Your task to perform on an android device: clear history in the chrome app Image 0: 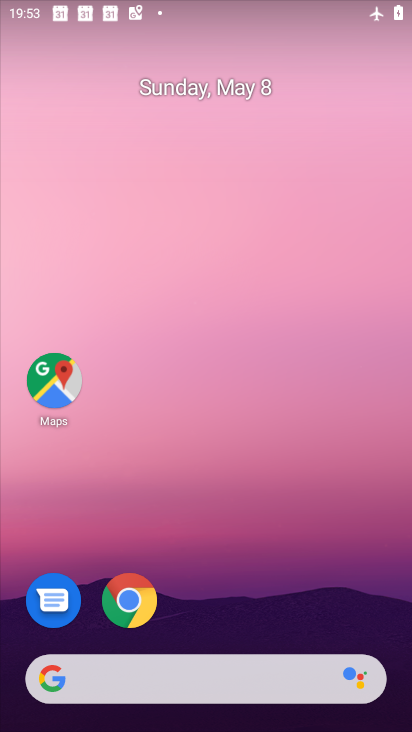
Step 0: drag from (255, 699) to (137, 171)
Your task to perform on an android device: clear history in the chrome app Image 1: 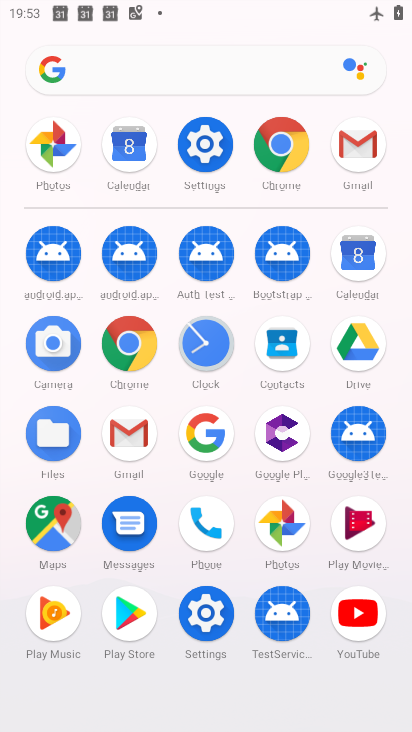
Step 1: click (273, 168)
Your task to perform on an android device: clear history in the chrome app Image 2: 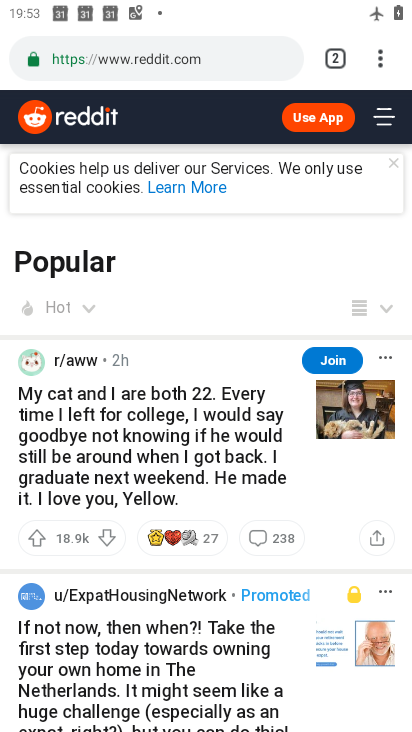
Step 2: click (377, 76)
Your task to perform on an android device: clear history in the chrome app Image 3: 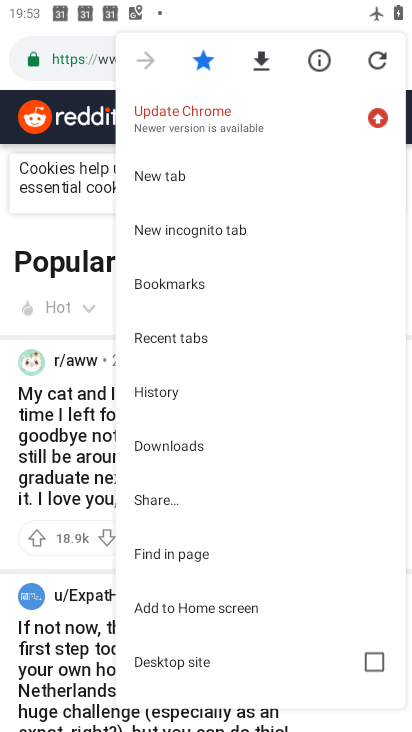
Step 3: drag from (225, 597) to (243, 479)
Your task to perform on an android device: clear history in the chrome app Image 4: 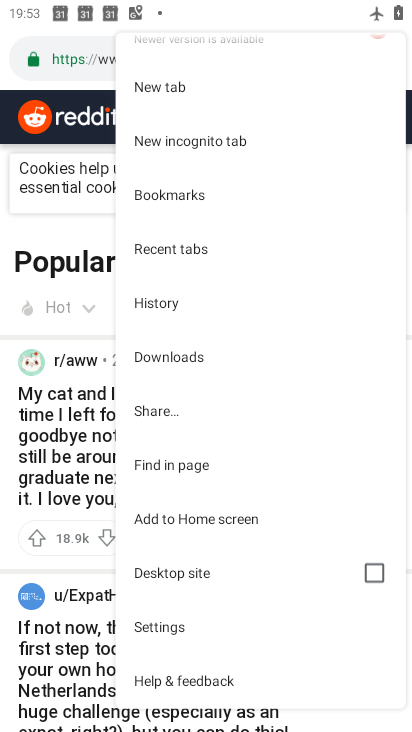
Step 4: click (187, 313)
Your task to perform on an android device: clear history in the chrome app Image 5: 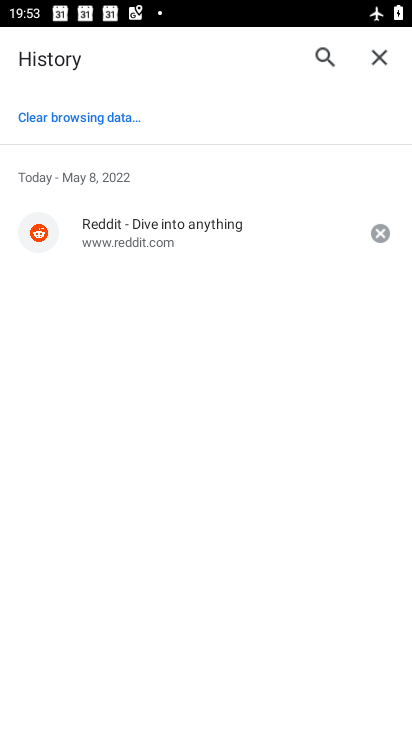
Step 5: click (380, 235)
Your task to perform on an android device: clear history in the chrome app Image 6: 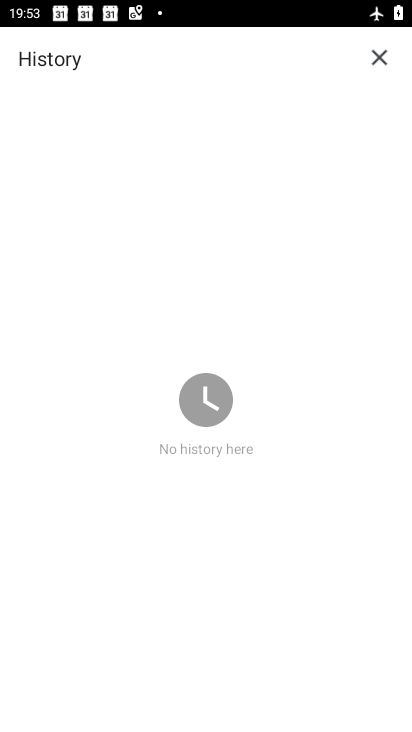
Step 6: task complete